Your task to perform on an android device: turn on notifications settings in the gmail app Image 0: 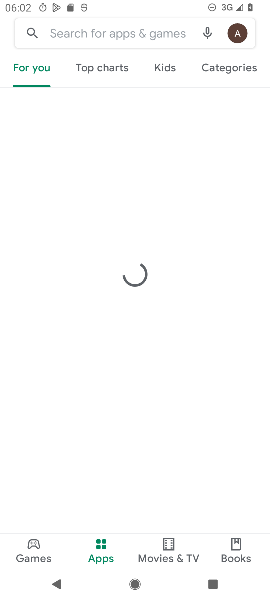
Step 0: press home button
Your task to perform on an android device: turn on notifications settings in the gmail app Image 1: 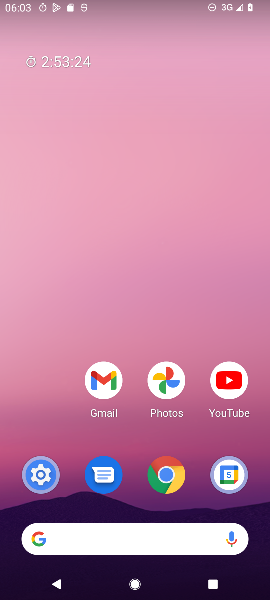
Step 1: drag from (58, 435) to (50, 194)
Your task to perform on an android device: turn on notifications settings in the gmail app Image 2: 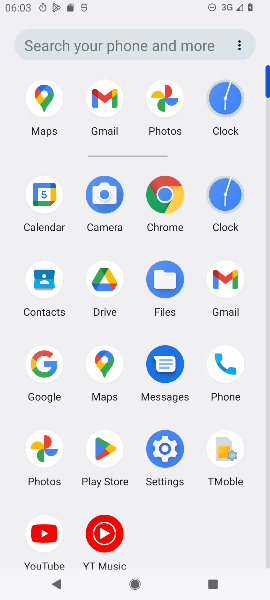
Step 2: click (223, 271)
Your task to perform on an android device: turn on notifications settings in the gmail app Image 3: 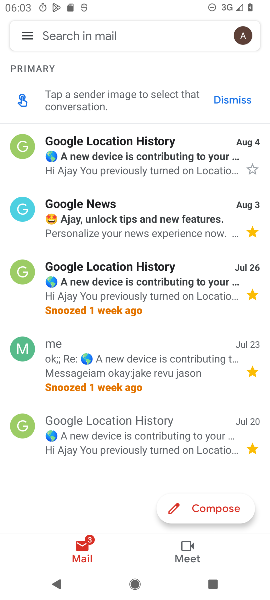
Step 3: click (22, 31)
Your task to perform on an android device: turn on notifications settings in the gmail app Image 4: 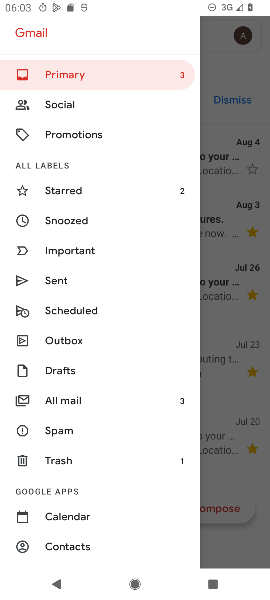
Step 4: drag from (136, 446) to (130, 293)
Your task to perform on an android device: turn on notifications settings in the gmail app Image 5: 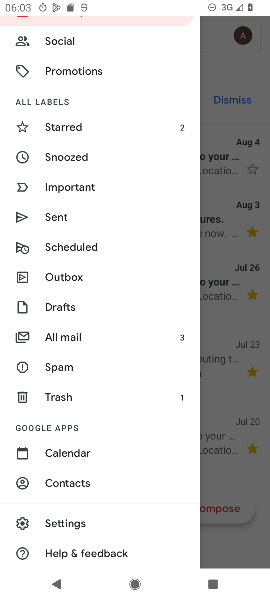
Step 5: click (65, 524)
Your task to perform on an android device: turn on notifications settings in the gmail app Image 6: 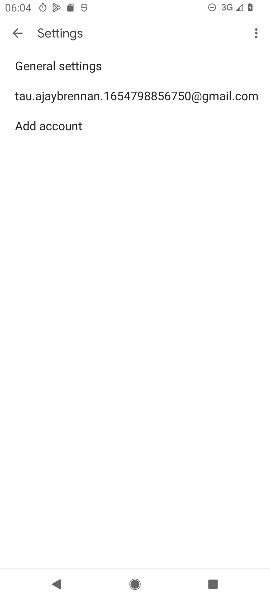
Step 6: click (148, 92)
Your task to perform on an android device: turn on notifications settings in the gmail app Image 7: 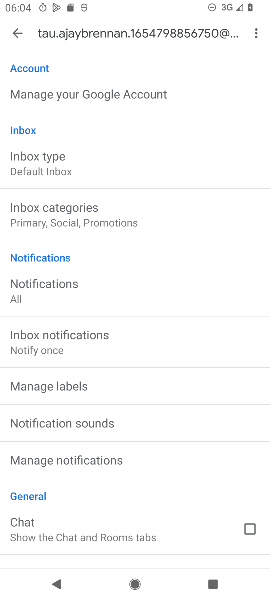
Step 7: drag from (170, 366) to (180, 256)
Your task to perform on an android device: turn on notifications settings in the gmail app Image 8: 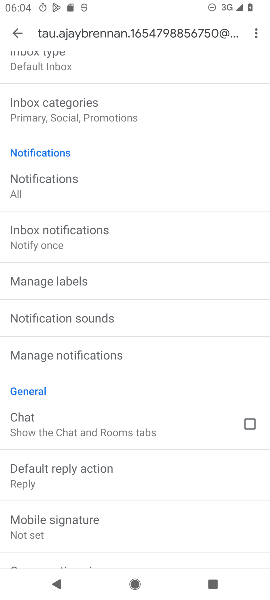
Step 8: drag from (173, 360) to (182, 249)
Your task to perform on an android device: turn on notifications settings in the gmail app Image 9: 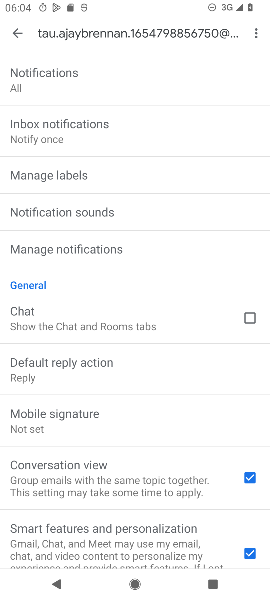
Step 9: drag from (192, 372) to (194, 287)
Your task to perform on an android device: turn on notifications settings in the gmail app Image 10: 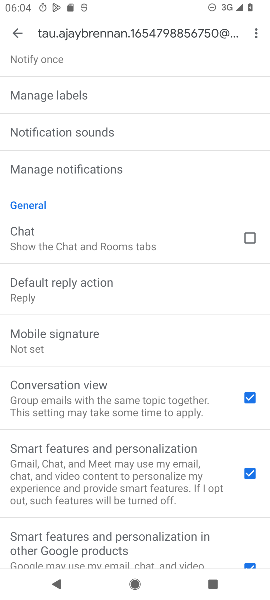
Step 10: drag from (181, 353) to (188, 254)
Your task to perform on an android device: turn on notifications settings in the gmail app Image 11: 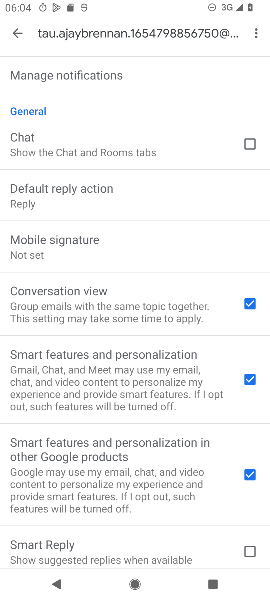
Step 11: drag from (182, 405) to (183, 252)
Your task to perform on an android device: turn on notifications settings in the gmail app Image 12: 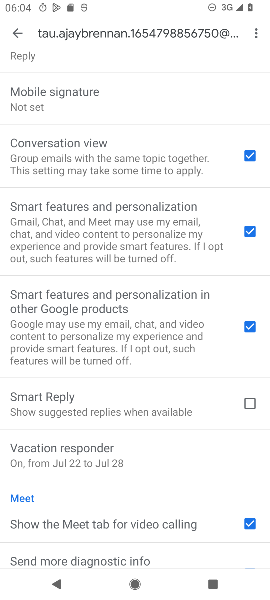
Step 12: drag from (185, 425) to (188, 305)
Your task to perform on an android device: turn on notifications settings in the gmail app Image 13: 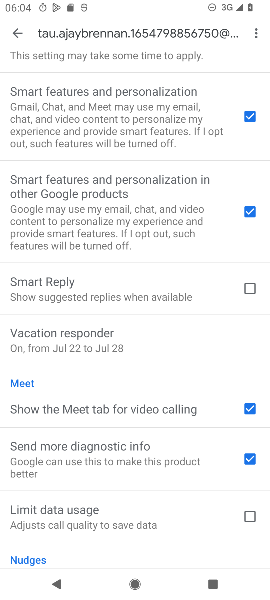
Step 13: drag from (200, 172) to (202, 266)
Your task to perform on an android device: turn on notifications settings in the gmail app Image 14: 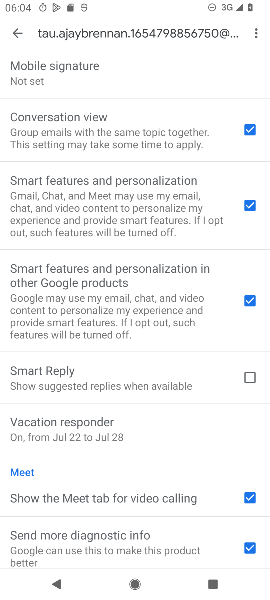
Step 14: drag from (185, 152) to (183, 265)
Your task to perform on an android device: turn on notifications settings in the gmail app Image 15: 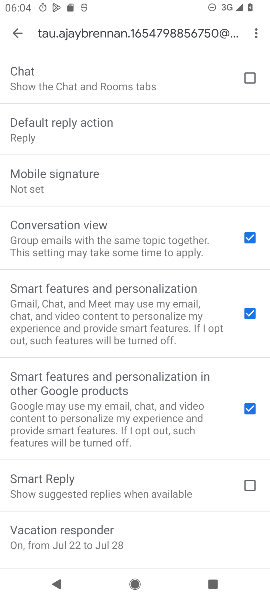
Step 15: drag from (174, 158) to (178, 348)
Your task to perform on an android device: turn on notifications settings in the gmail app Image 16: 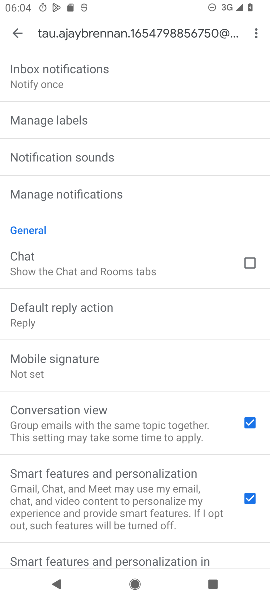
Step 16: click (120, 192)
Your task to perform on an android device: turn on notifications settings in the gmail app Image 17: 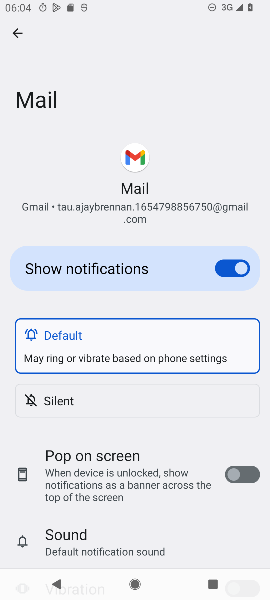
Step 17: task complete